Your task to perform on an android device: see sites visited before in the chrome app Image 0: 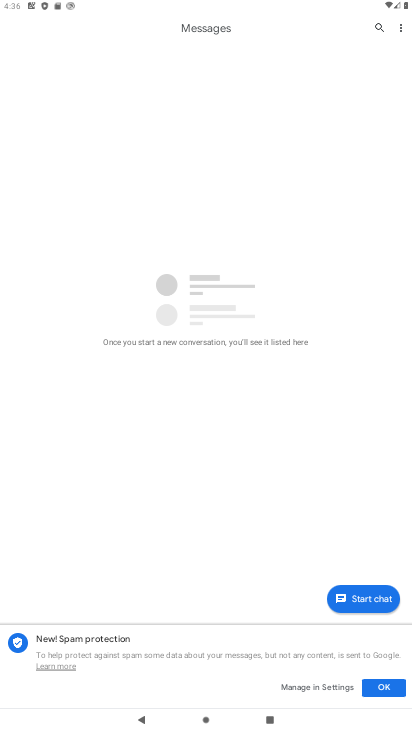
Step 0: press home button
Your task to perform on an android device: see sites visited before in the chrome app Image 1: 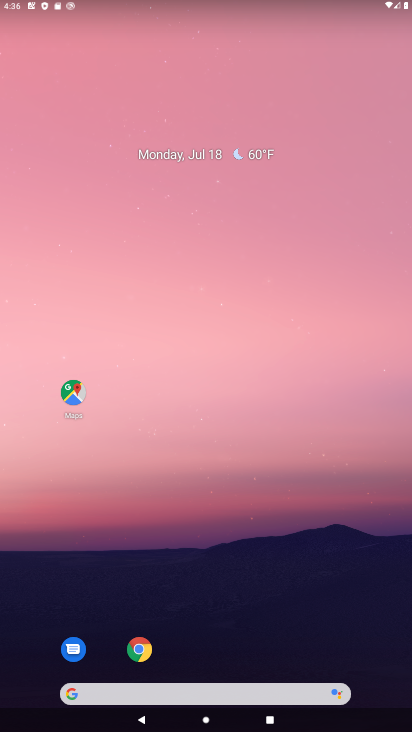
Step 1: drag from (223, 653) to (221, 15)
Your task to perform on an android device: see sites visited before in the chrome app Image 2: 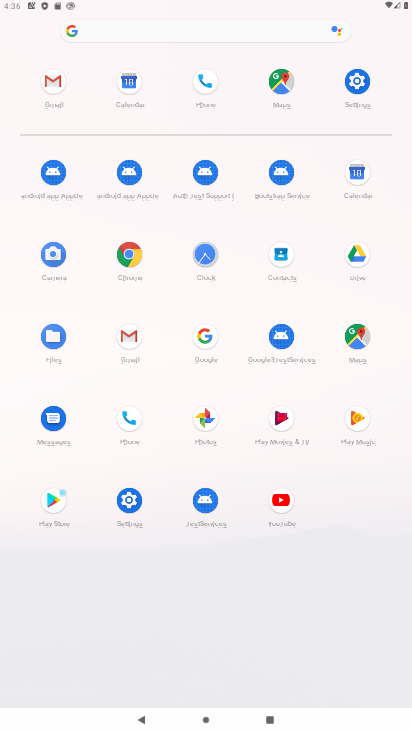
Step 2: click (133, 327)
Your task to perform on an android device: see sites visited before in the chrome app Image 3: 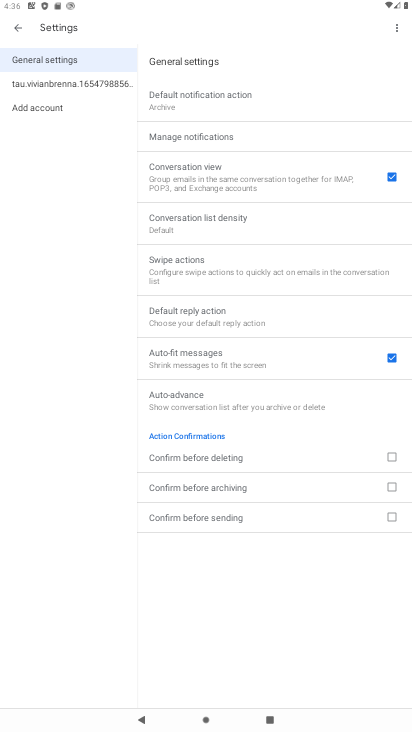
Step 3: press home button
Your task to perform on an android device: see sites visited before in the chrome app Image 4: 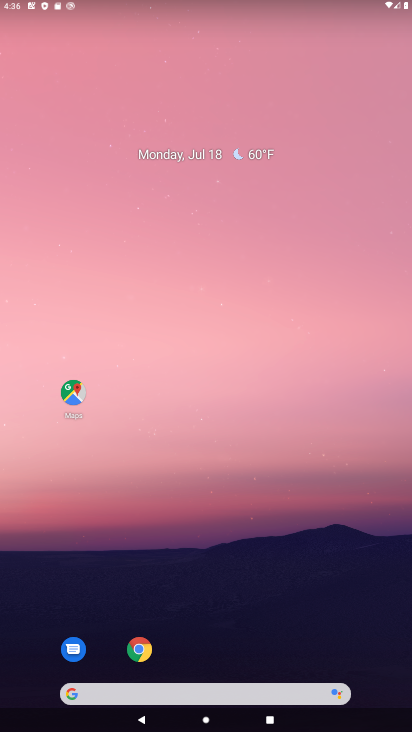
Step 4: drag from (230, 613) to (250, 68)
Your task to perform on an android device: see sites visited before in the chrome app Image 5: 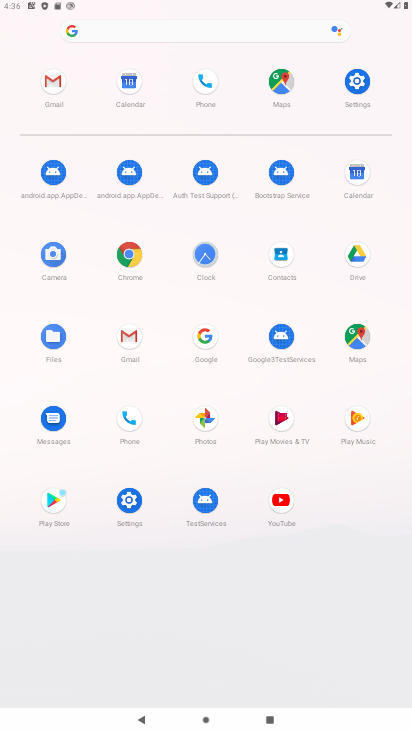
Step 5: click (129, 259)
Your task to perform on an android device: see sites visited before in the chrome app Image 6: 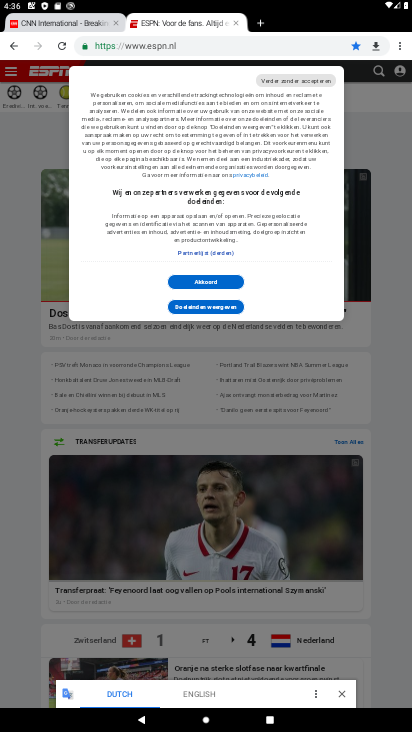
Step 6: click (397, 42)
Your task to perform on an android device: see sites visited before in the chrome app Image 7: 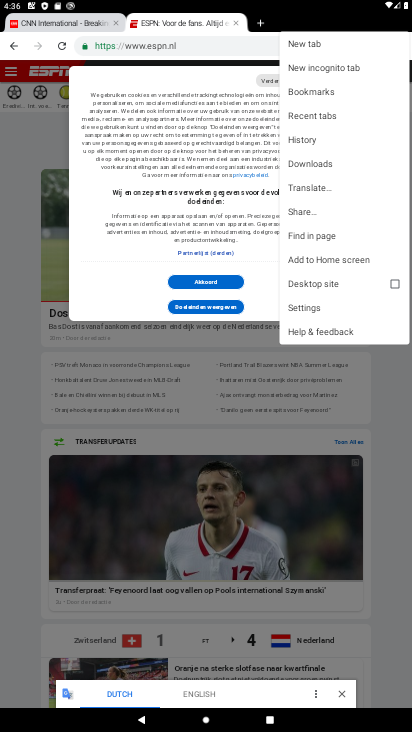
Step 7: click (307, 135)
Your task to perform on an android device: see sites visited before in the chrome app Image 8: 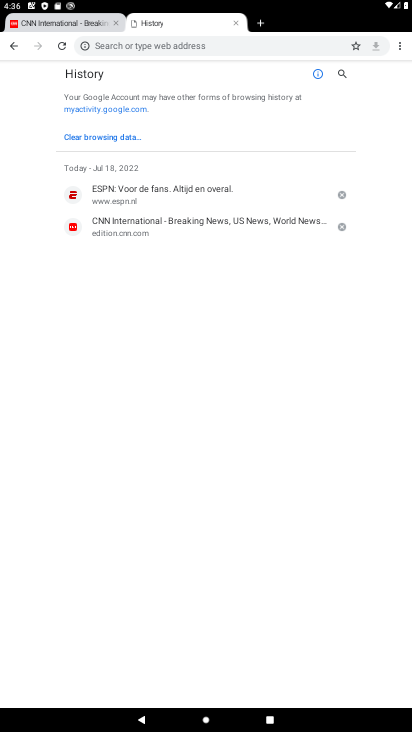
Step 8: task complete